Your task to perform on an android device: Open my contact list Image 0: 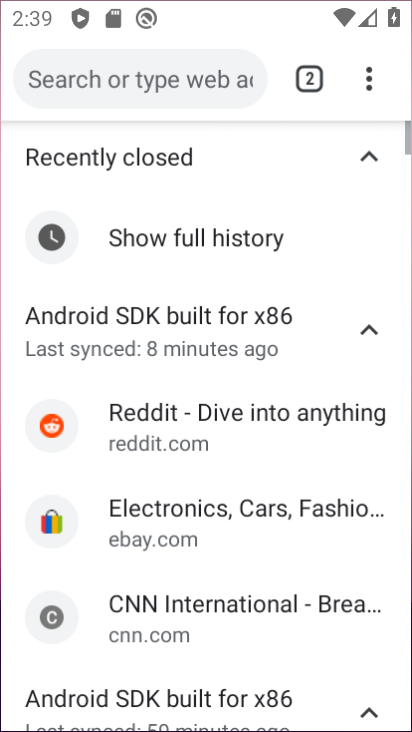
Step 0: drag from (275, 588) to (307, 4)
Your task to perform on an android device: Open my contact list Image 1: 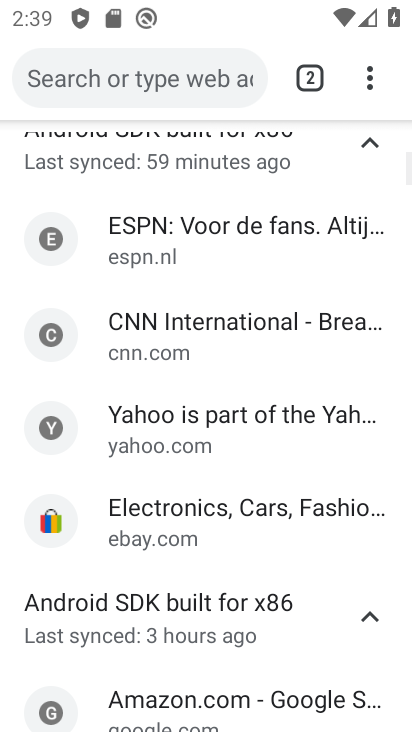
Step 1: press back button
Your task to perform on an android device: Open my contact list Image 2: 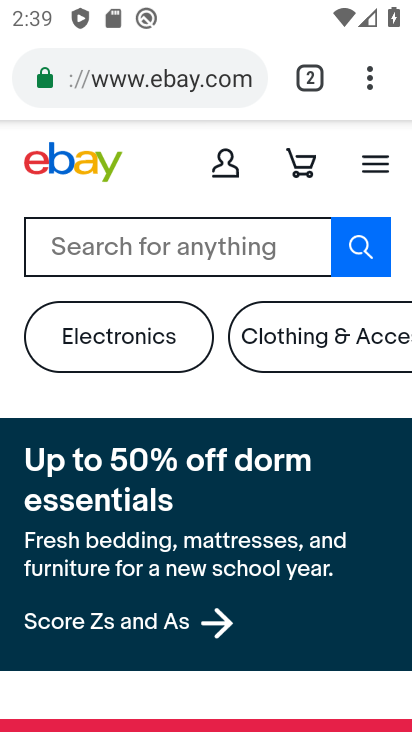
Step 2: press back button
Your task to perform on an android device: Open my contact list Image 3: 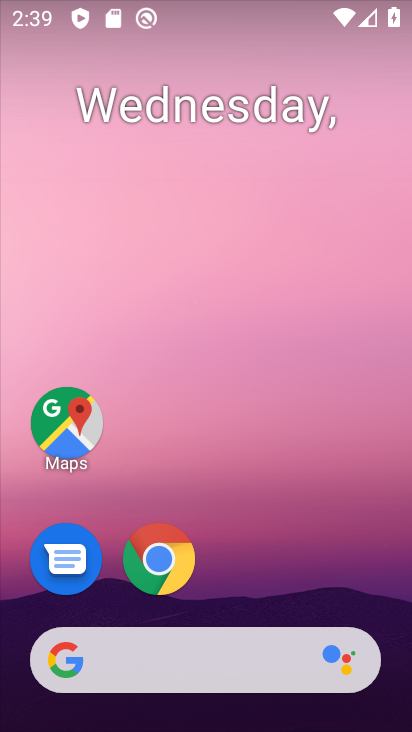
Step 3: drag from (235, 572) to (313, 19)
Your task to perform on an android device: Open my contact list Image 4: 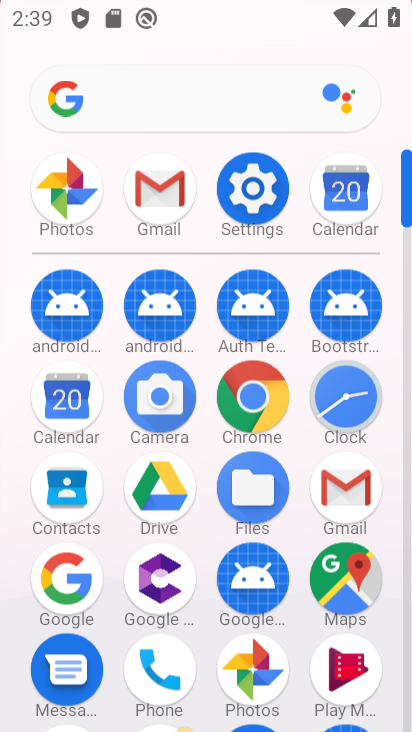
Step 4: click (74, 508)
Your task to perform on an android device: Open my contact list Image 5: 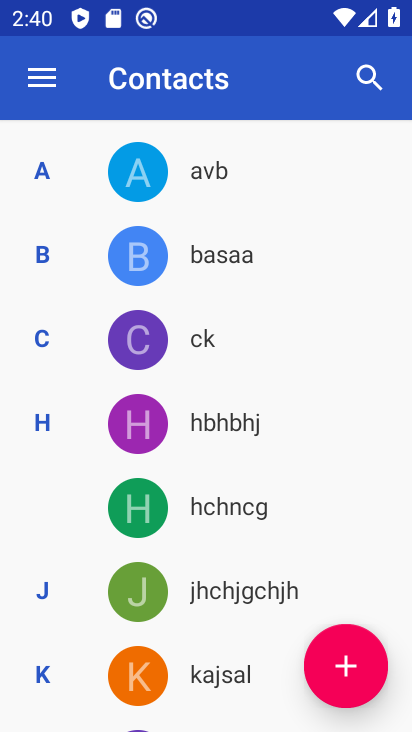
Step 5: task complete